Your task to perform on an android device: find which apps use the phone's location Image 0: 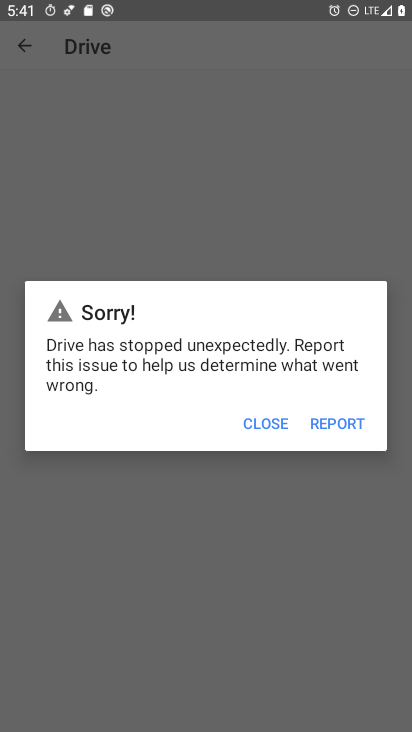
Step 0: press home button
Your task to perform on an android device: find which apps use the phone's location Image 1: 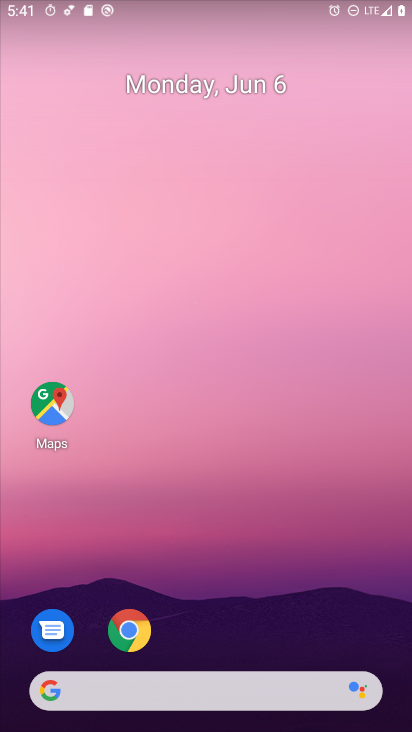
Step 1: drag from (261, 625) to (255, 2)
Your task to perform on an android device: find which apps use the phone's location Image 2: 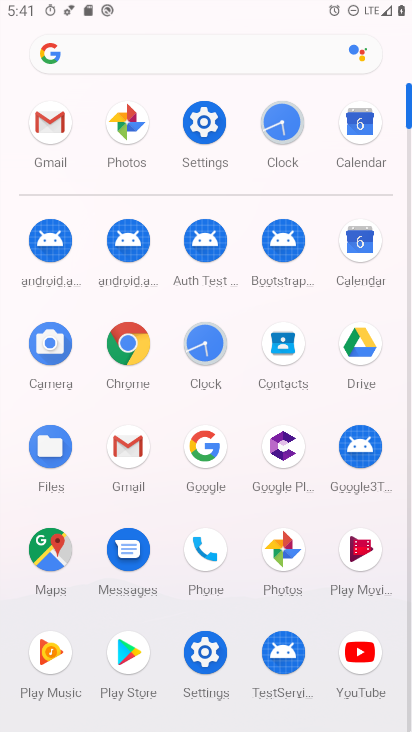
Step 2: click (210, 113)
Your task to perform on an android device: find which apps use the phone's location Image 3: 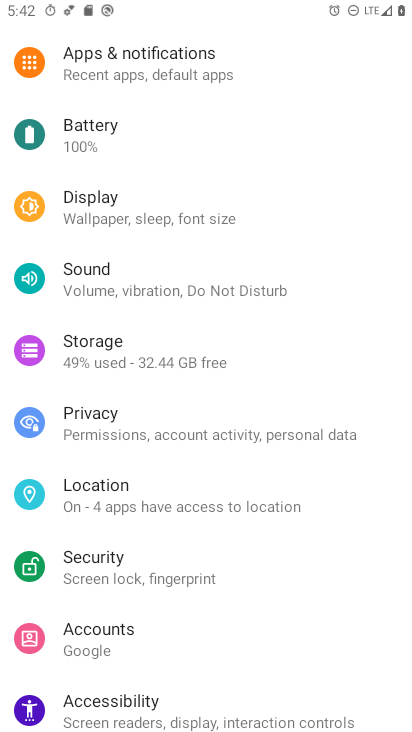
Step 3: click (166, 495)
Your task to perform on an android device: find which apps use the phone's location Image 4: 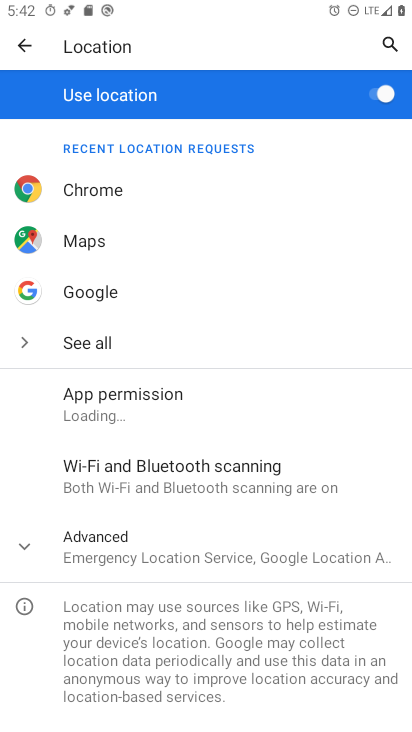
Step 4: click (162, 409)
Your task to perform on an android device: find which apps use the phone's location Image 5: 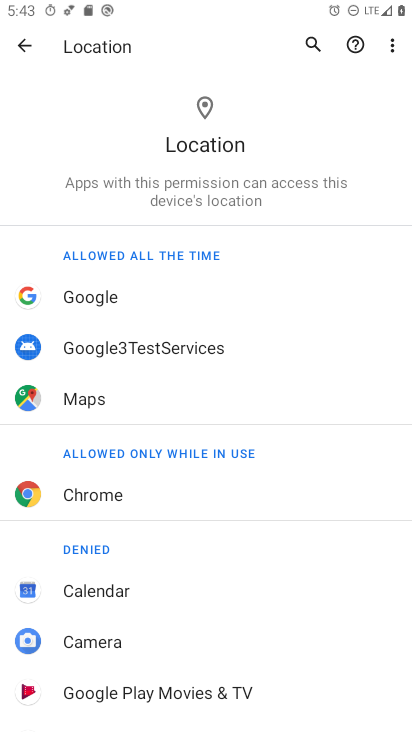
Step 5: task complete